Your task to perform on an android device: Open notification settings Image 0: 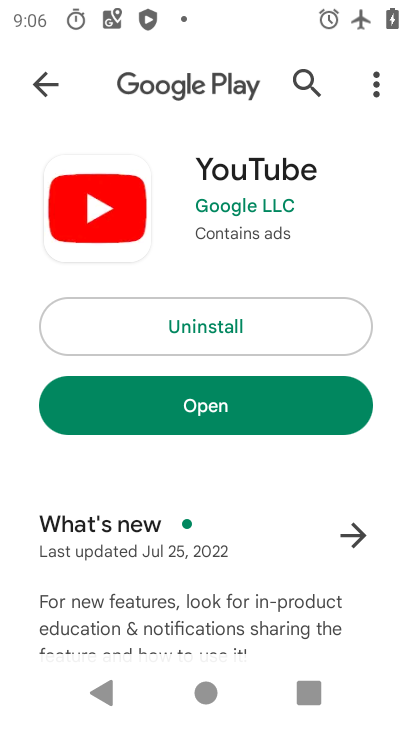
Step 0: press home button
Your task to perform on an android device: Open notification settings Image 1: 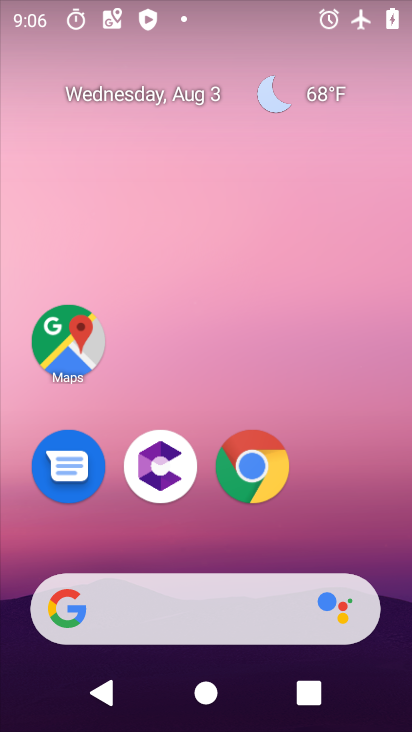
Step 1: drag from (337, 478) to (235, 100)
Your task to perform on an android device: Open notification settings Image 2: 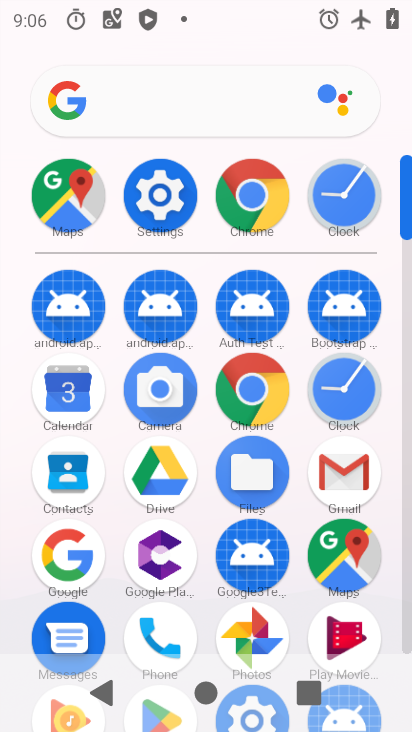
Step 2: click (164, 185)
Your task to perform on an android device: Open notification settings Image 3: 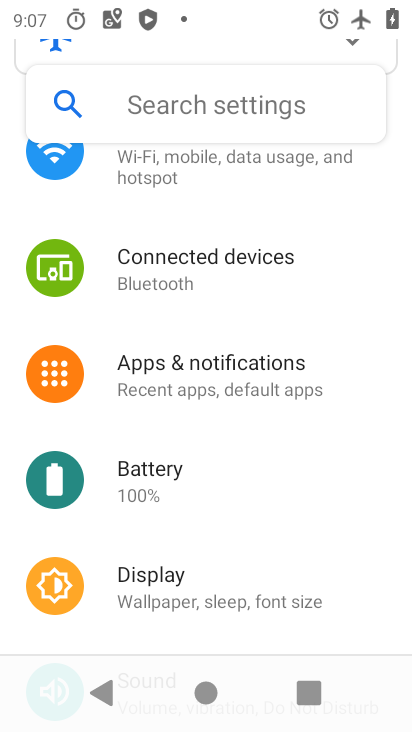
Step 3: click (235, 368)
Your task to perform on an android device: Open notification settings Image 4: 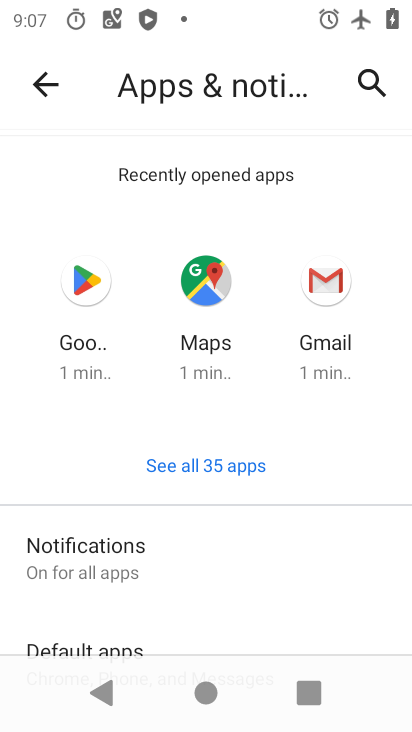
Step 4: click (62, 576)
Your task to perform on an android device: Open notification settings Image 5: 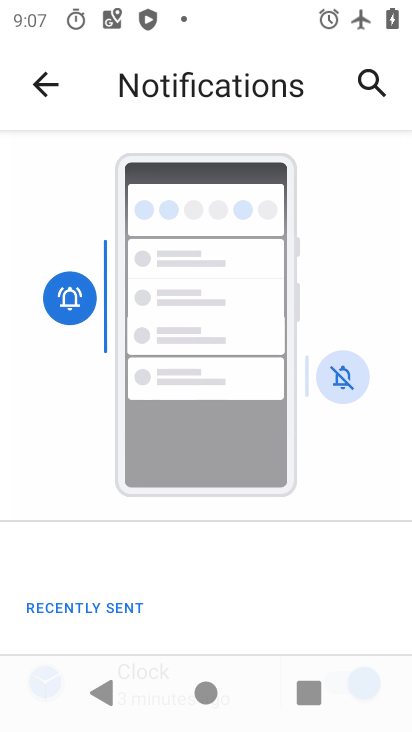
Step 5: task complete